Your task to perform on an android device: change the upload size in google photos Image 0: 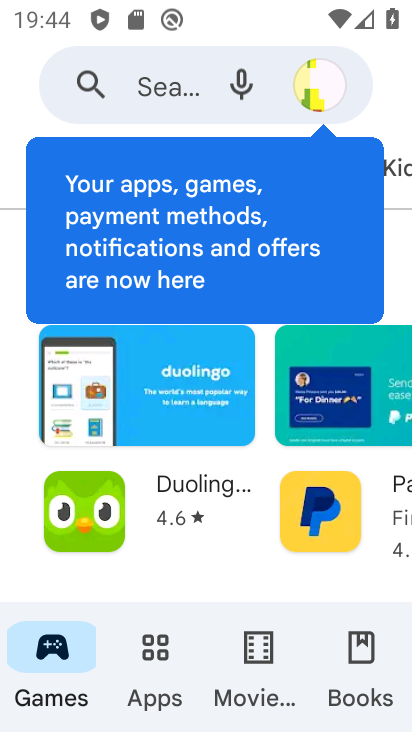
Step 0: press home button
Your task to perform on an android device: change the upload size in google photos Image 1: 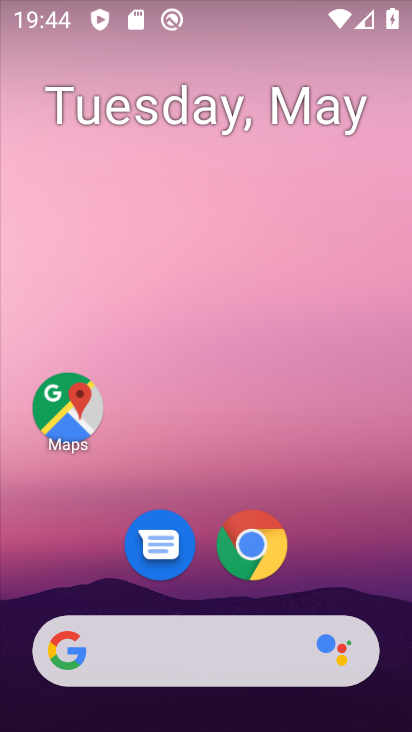
Step 1: drag from (372, 600) to (361, 93)
Your task to perform on an android device: change the upload size in google photos Image 2: 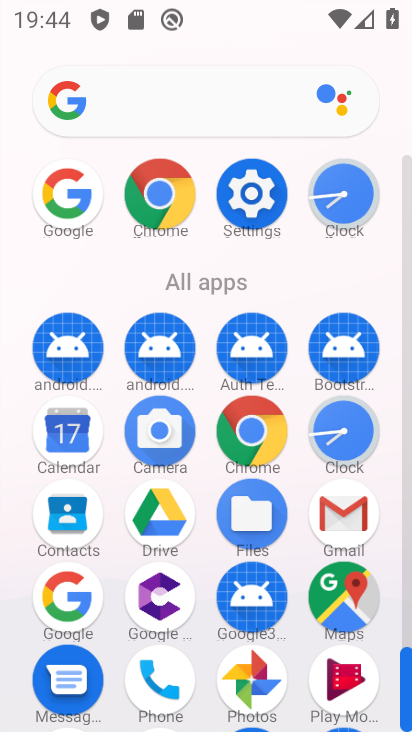
Step 2: click (251, 662)
Your task to perform on an android device: change the upload size in google photos Image 3: 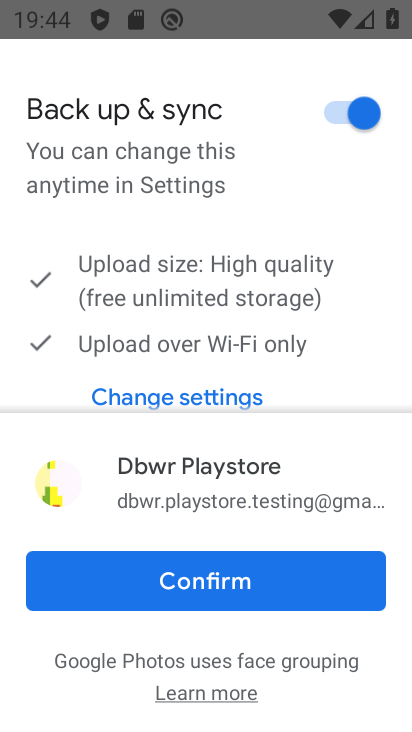
Step 3: click (259, 581)
Your task to perform on an android device: change the upload size in google photos Image 4: 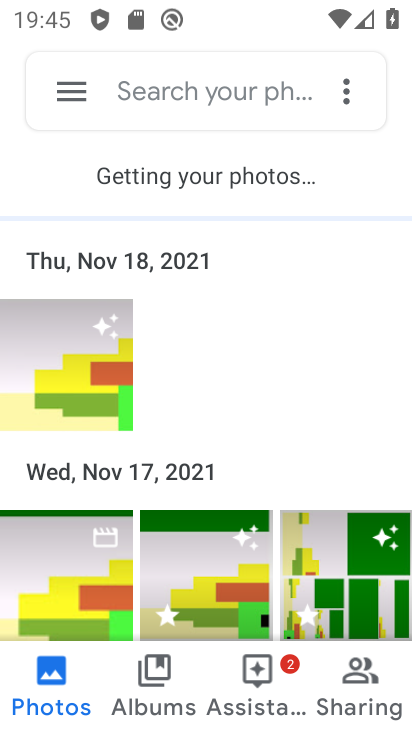
Step 4: click (74, 94)
Your task to perform on an android device: change the upload size in google photos Image 5: 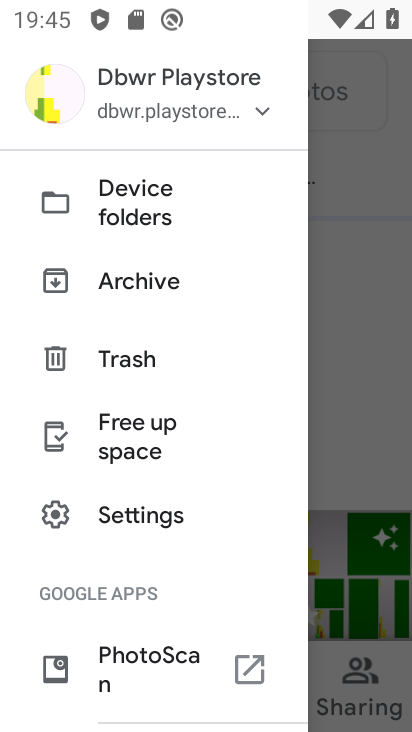
Step 5: click (152, 518)
Your task to perform on an android device: change the upload size in google photos Image 6: 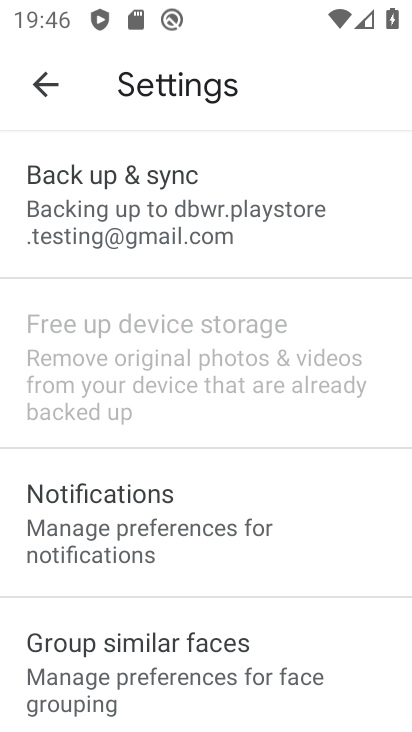
Step 6: click (217, 181)
Your task to perform on an android device: change the upload size in google photos Image 7: 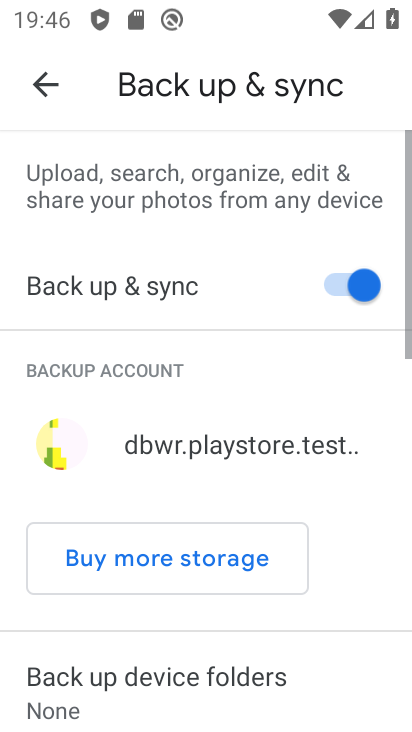
Step 7: drag from (344, 678) to (311, 346)
Your task to perform on an android device: change the upload size in google photos Image 8: 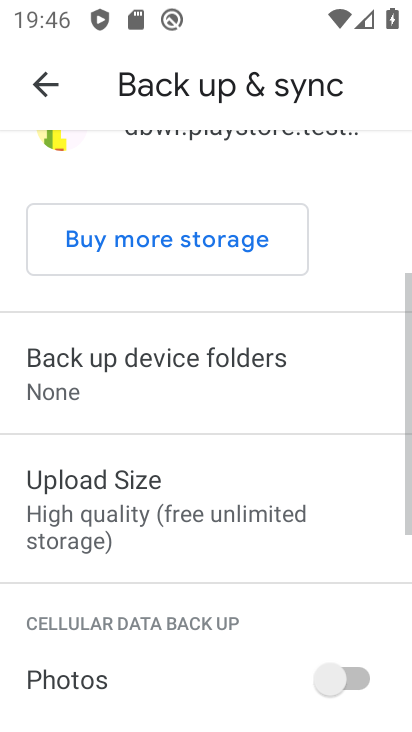
Step 8: click (222, 494)
Your task to perform on an android device: change the upload size in google photos Image 9: 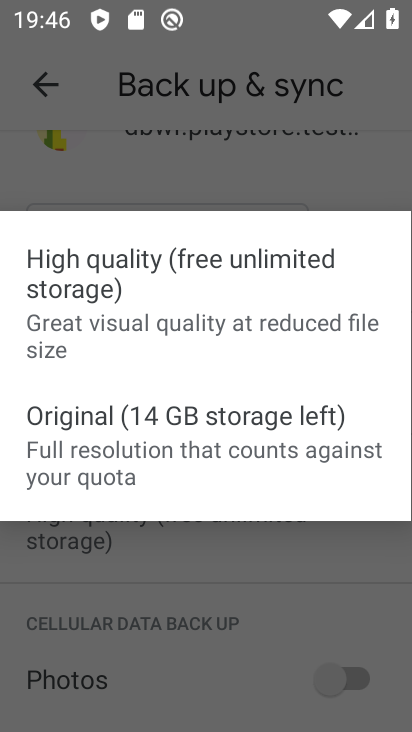
Step 9: click (162, 422)
Your task to perform on an android device: change the upload size in google photos Image 10: 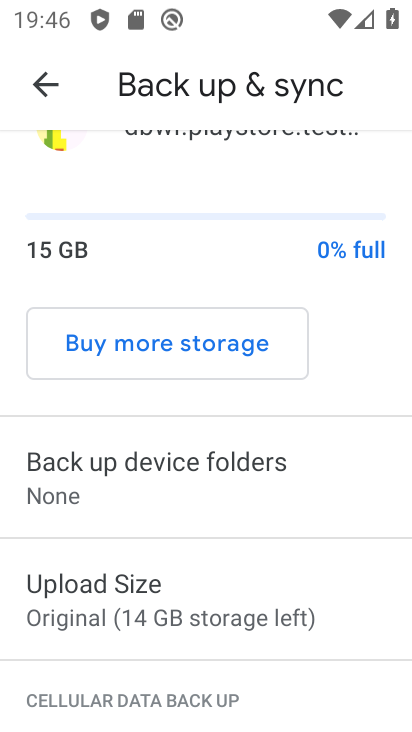
Step 10: task complete